Your task to perform on an android device: Open Google Maps Image 0: 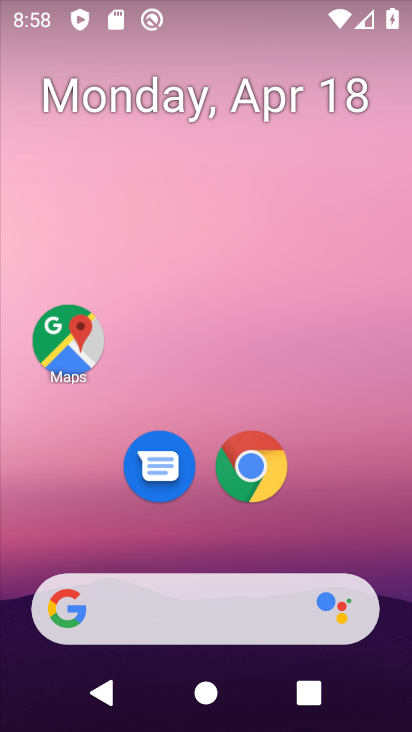
Step 0: click (62, 338)
Your task to perform on an android device: Open Google Maps Image 1: 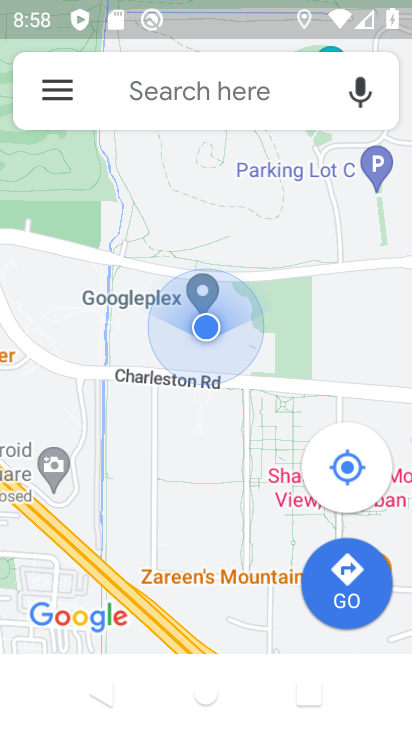
Step 1: task complete